Your task to perform on an android device: check storage Image 0: 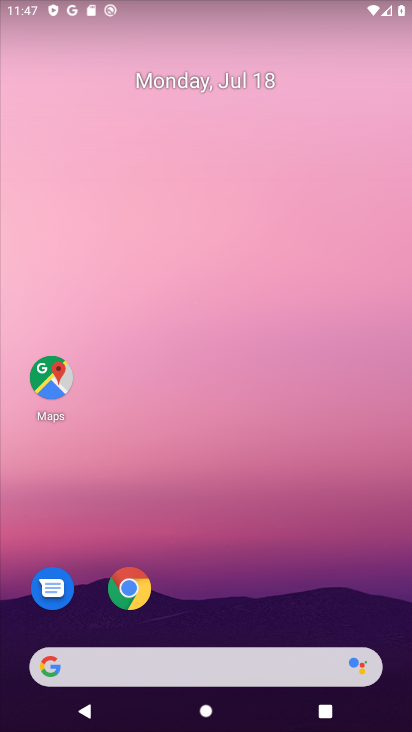
Step 0: click (118, 192)
Your task to perform on an android device: check storage Image 1: 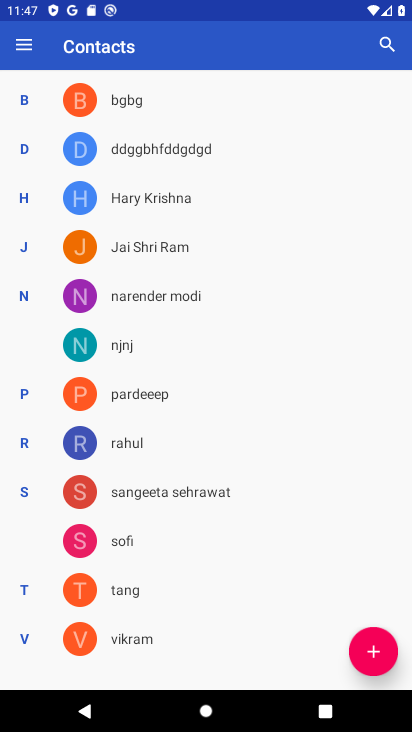
Step 1: drag from (140, 10) to (175, 528)
Your task to perform on an android device: check storage Image 2: 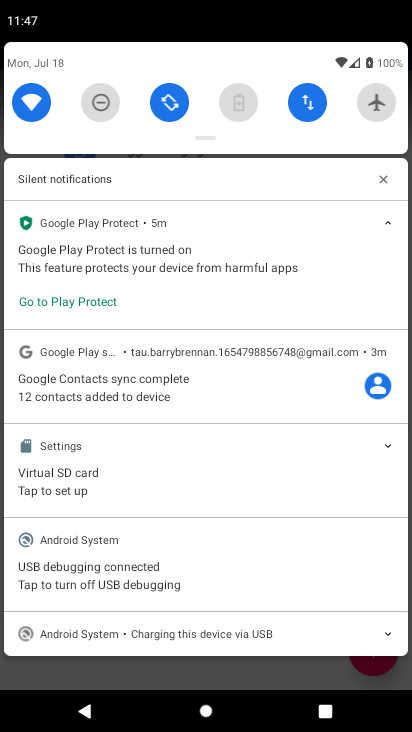
Step 2: click (239, 92)
Your task to perform on an android device: check storage Image 3: 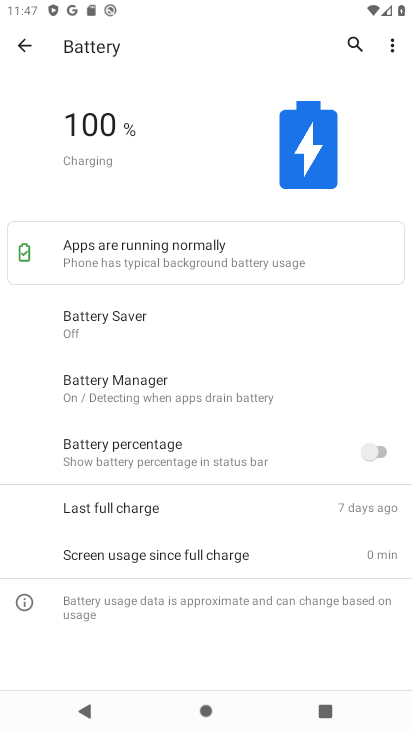
Step 3: task complete